Your task to perform on an android device: Search for seafood restaurants on Google Maps Image 0: 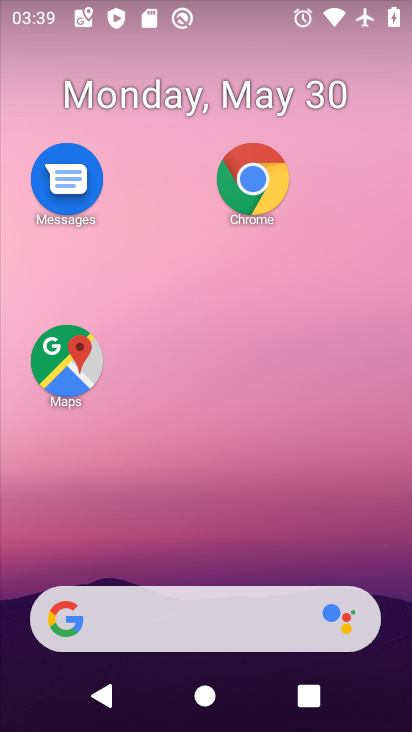
Step 0: drag from (265, 565) to (382, 6)
Your task to perform on an android device: Search for seafood restaurants on Google Maps Image 1: 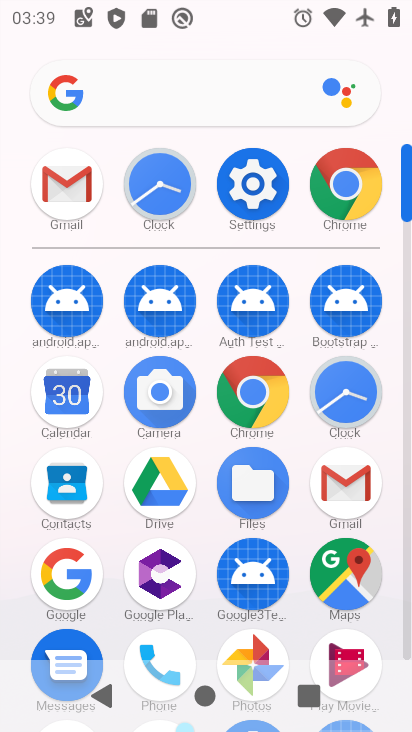
Step 1: click (345, 588)
Your task to perform on an android device: Search for seafood restaurants on Google Maps Image 2: 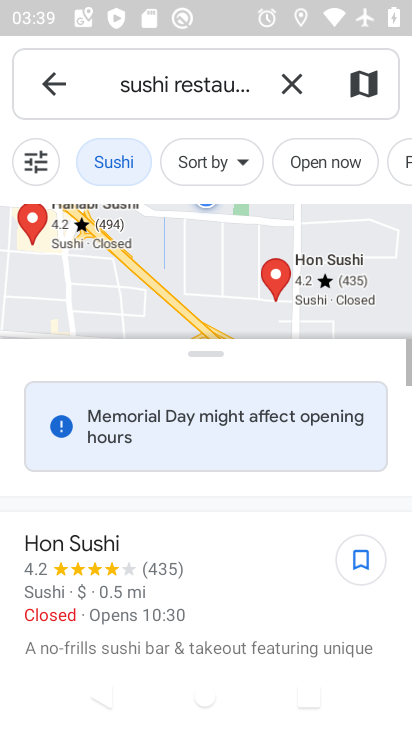
Step 2: click (294, 84)
Your task to perform on an android device: Search for seafood restaurants on Google Maps Image 3: 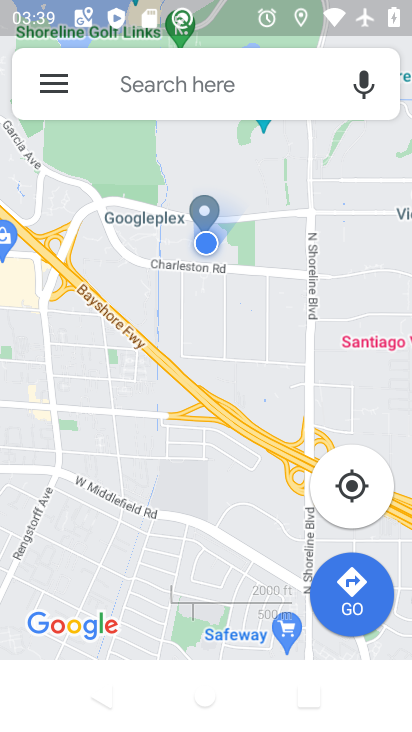
Step 3: click (211, 85)
Your task to perform on an android device: Search for seafood restaurants on Google Maps Image 4: 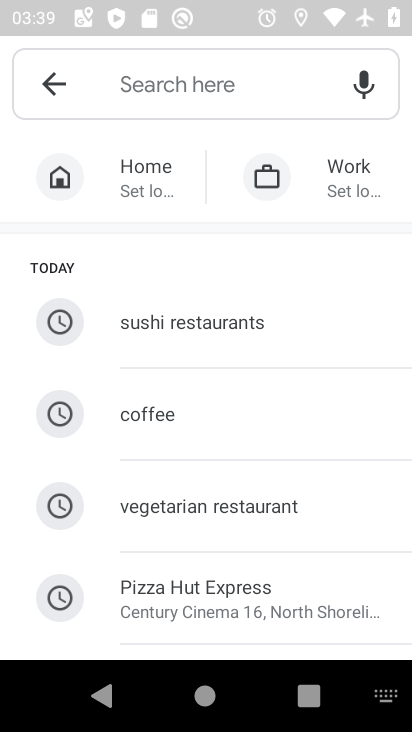
Step 4: drag from (178, 597) to (247, 216)
Your task to perform on an android device: Search for seafood restaurants on Google Maps Image 5: 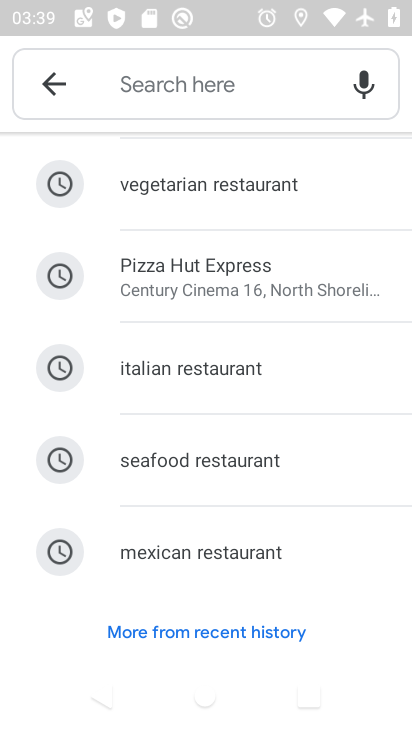
Step 5: click (146, 457)
Your task to perform on an android device: Search for seafood restaurants on Google Maps Image 6: 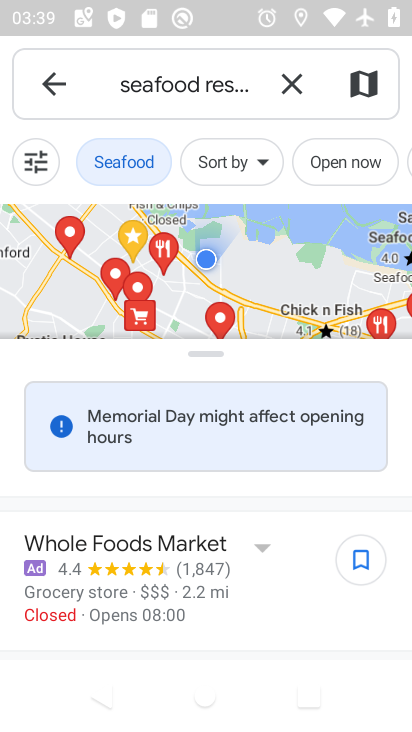
Step 6: task complete